Your task to perform on an android device: Show me productivity apps on the Play Store Image 0: 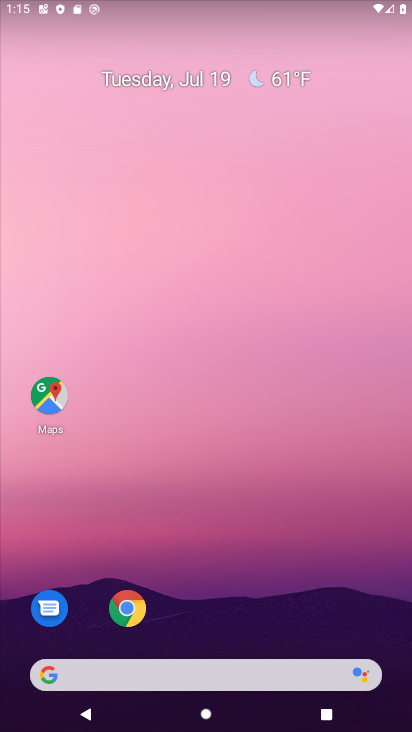
Step 0: drag from (178, 623) to (144, 203)
Your task to perform on an android device: Show me productivity apps on the Play Store Image 1: 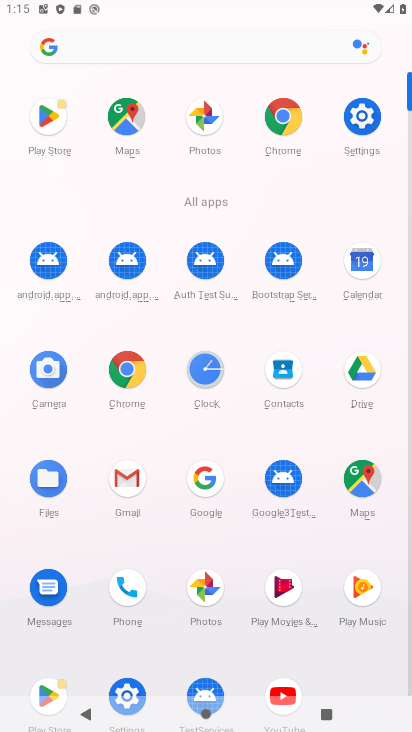
Step 1: click (134, 685)
Your task to perform on an android device: Show me productivity apps on the Play Store Image 2: 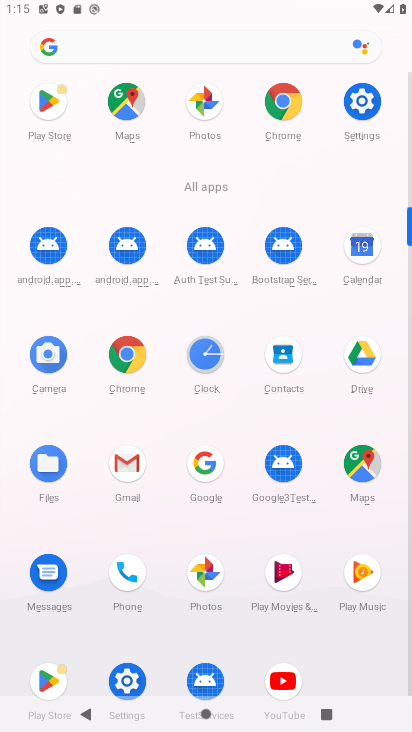
Step 2: drag from (97, 679) to (147, 314)
Your task to perform on an android device: Show me productivity apps on the Play Store Image 3: 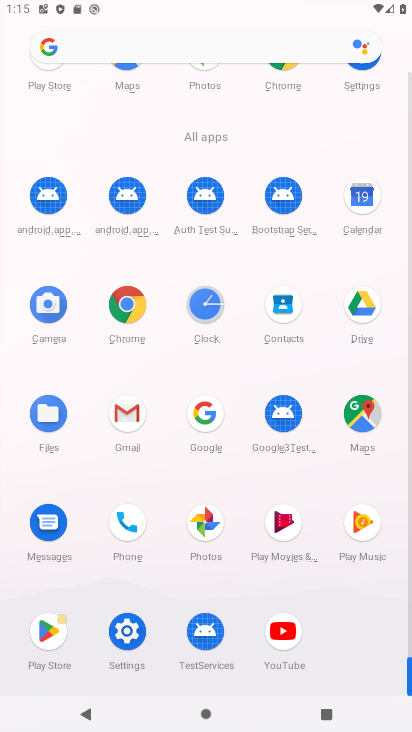
Step 3: click (51, 640)
Your task to perform on an android device: Show me productivity apps on the Play Store Image 4: 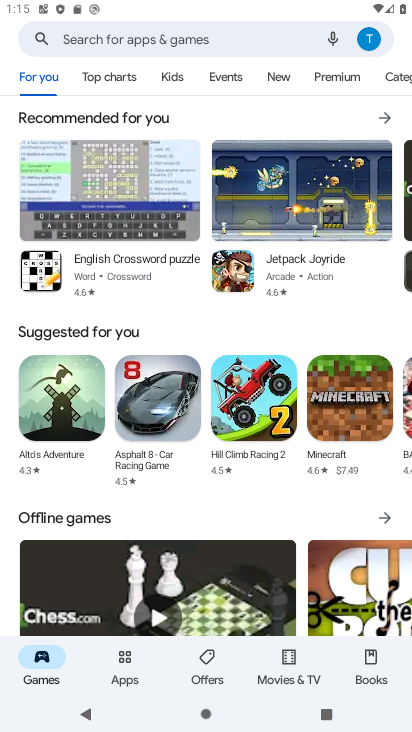
Step 4: click (132, 666)
Your task to perform on an android device: Show me productivity apps on the Play Store Image 5: 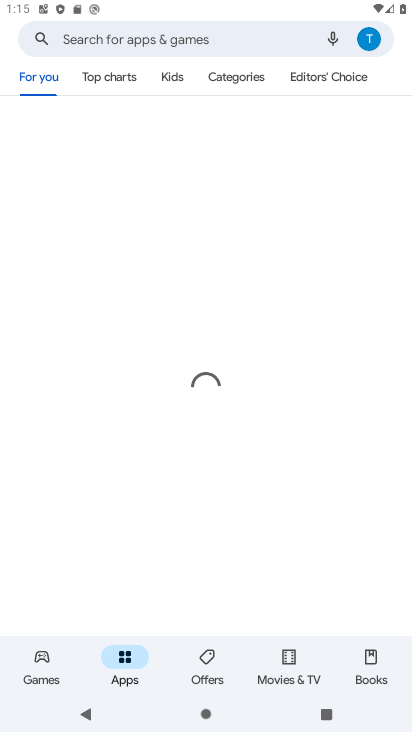
Step 5: click (226, 76)
Your task to perform on an android device: Show me productivity apps on the Play Store Image 6: 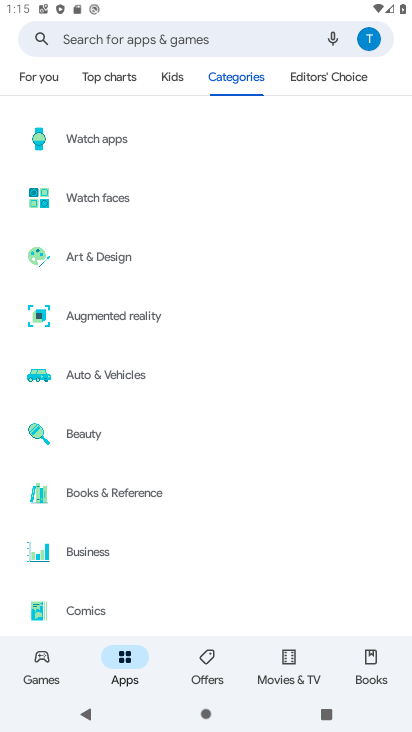
Step 6: drag from (149, 603) to (179, 47)
Your task to perform on an android device: Show me productivity apps on the Play Store Image 7: 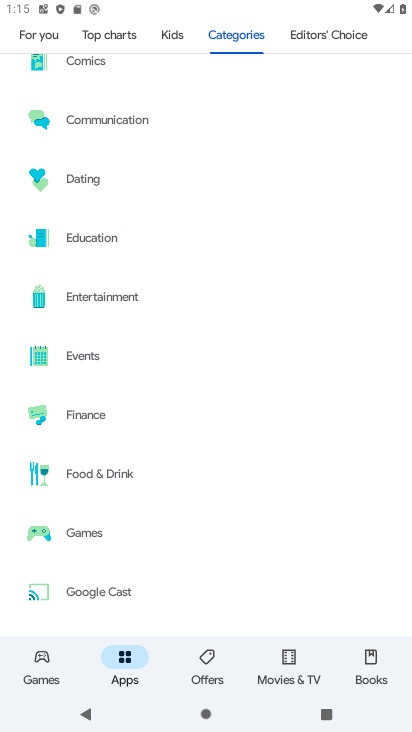
Step 7: drag from (148, 586) to (253, 32)
Your task to perform on an android device: Show me productivity apps on the Play Store Image 8: 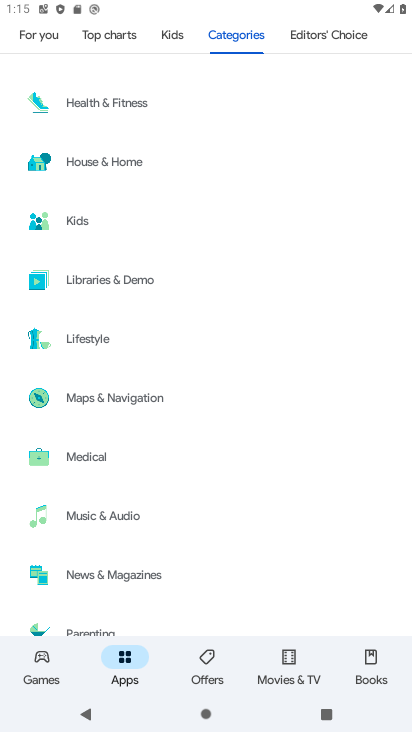
Step 8: drag from (184, 600) to (305, 53)
Your task to perform on an android device: Show me productivity apps on the Play Store Image 9: 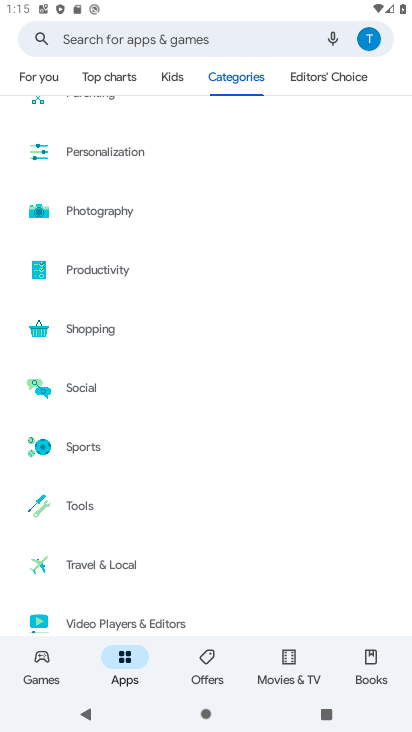
Step 9: drag from (156, 580) to (151, 232)
Your task to perform on an android device: Show me productivity apps on the Play Store Image 10: 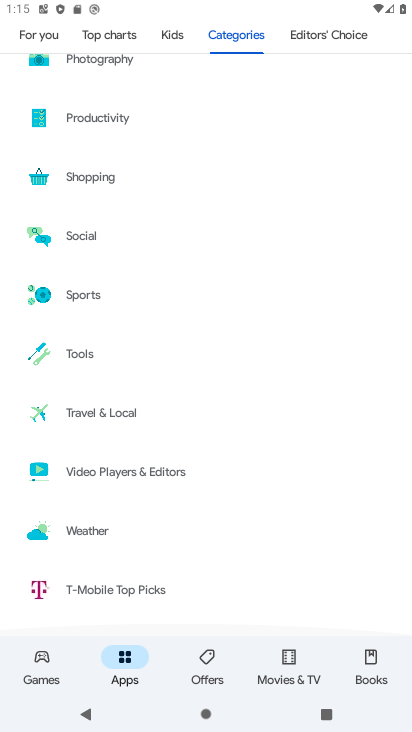
Step 10: click (97, 127)
Your task to perform on an android device: Show me productivity apps on the Play Store Image 11: 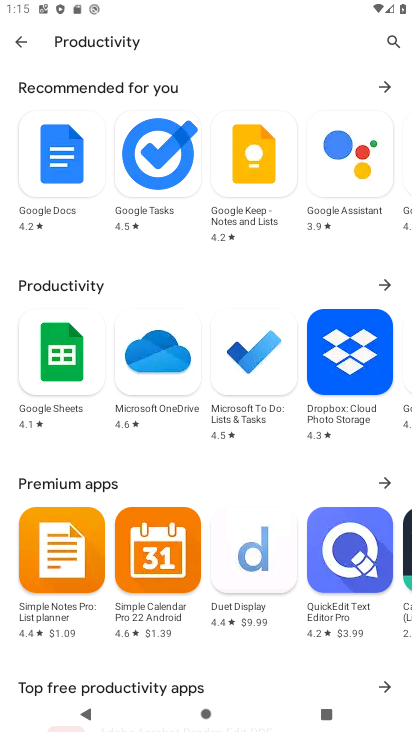
Step 11: task complete